Your task to perform on an android device: Check the settings for the Google Photos app Image 0: 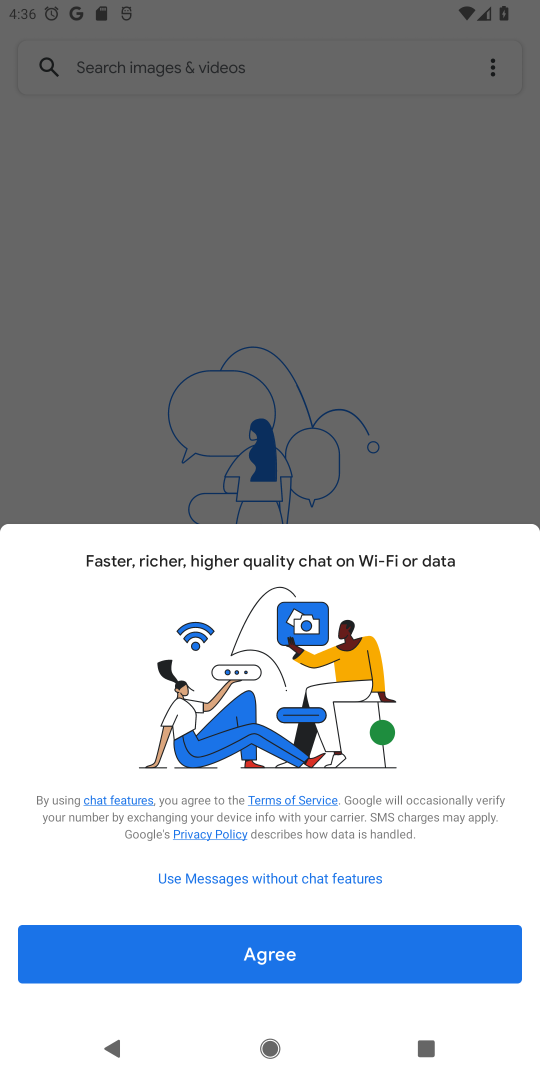
Step 0: press home button
Your task to perform on an android device: Check the settings for the Google Photos app Image 1: 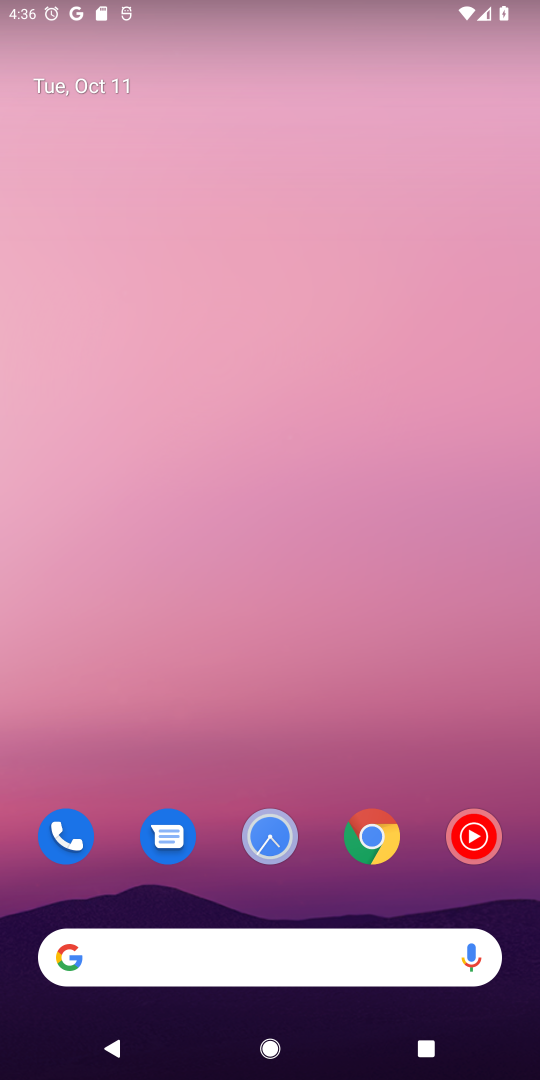
Step 1: drag from (207, 892) to (175, 43)
Your task to perform on an android device: Check the settings for the Google Photos app Image 2: 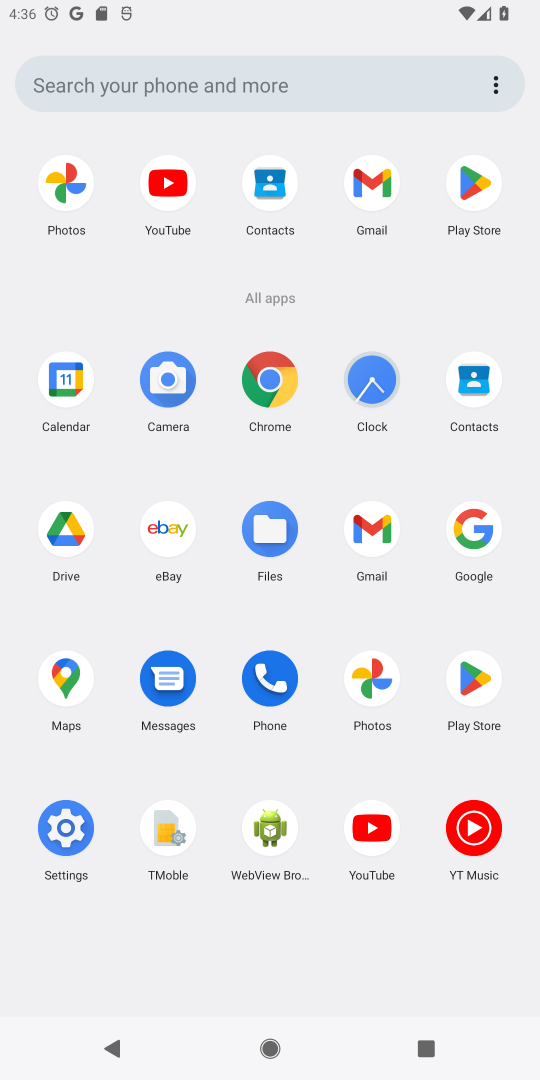
Step 2: click (366, 710)
Your task to perform on an android device: Check the settings for the Google Photos app Image 3: 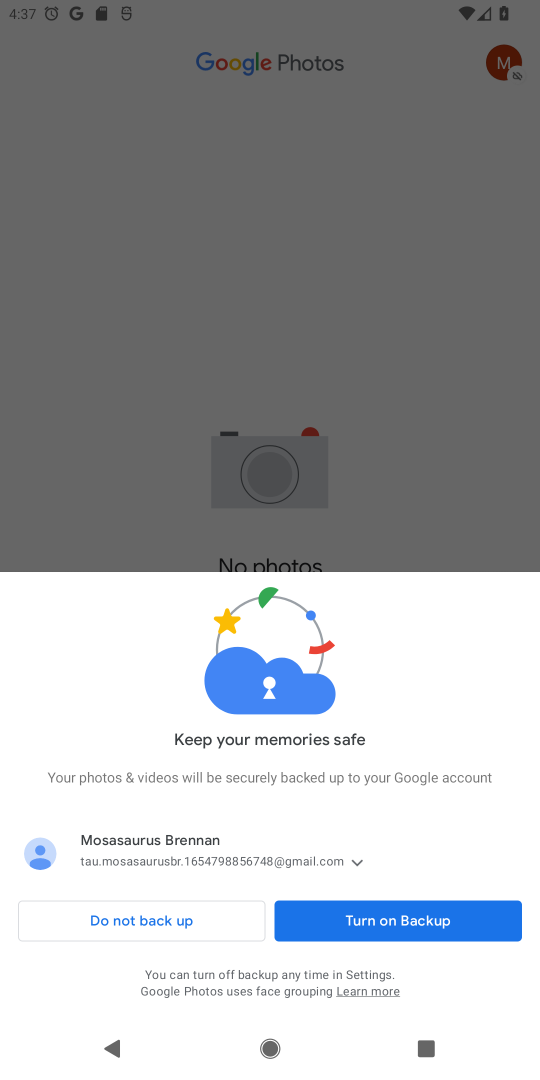
Step 3: task complete